Your task to perform on an android device: Open location settings Image 0: 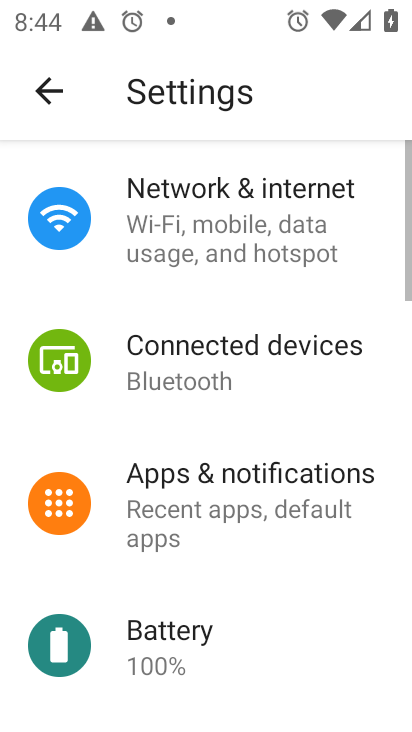
Step 0: drag from (207, 588) to (255, 293)
Your task to perform on an android device: Open location settings Image 1: 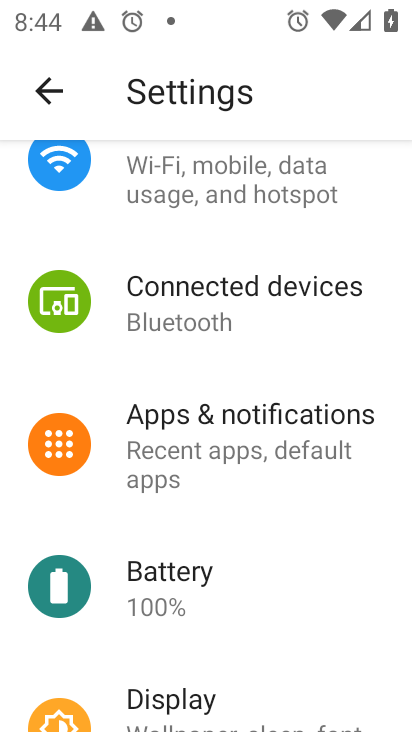
Step 1: drag from (229, 670) to (246, 211)
Your task to perform on an android device: Open location settings Image 2: 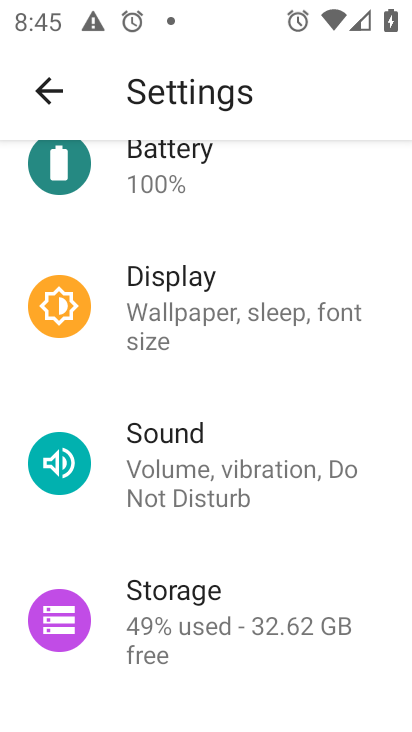
Step 2: drag from (230, 545) to (263, 133)
Your task to perform on an android device: Open location settings Image 3: 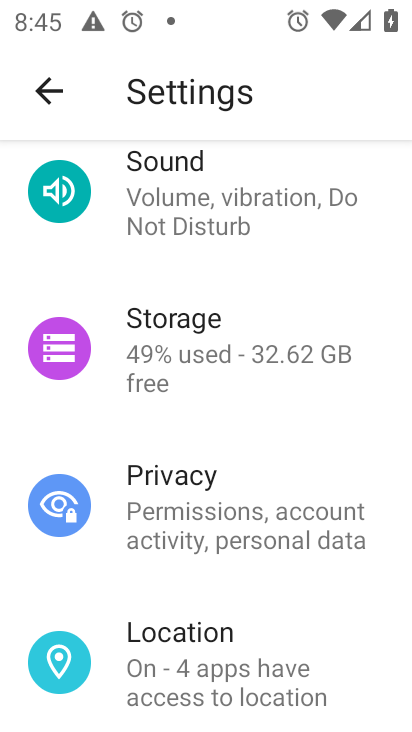
Step 3: click (203, 662)
Your task to perform on an android device: Open location settings Image 4: 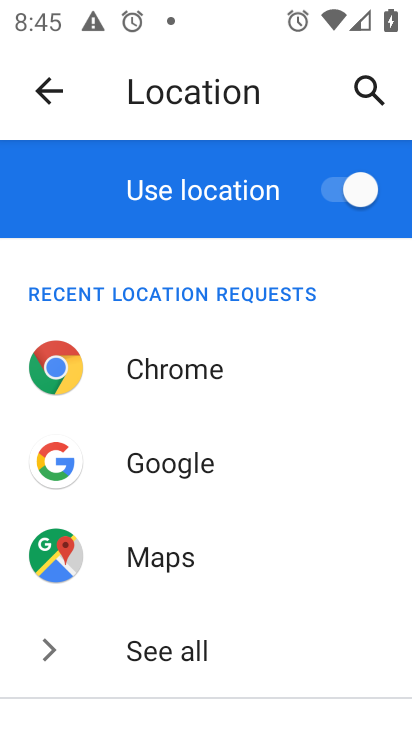
Step 4: task complete